Your task to perform on an android device: star an email in the gmail app Image 0: 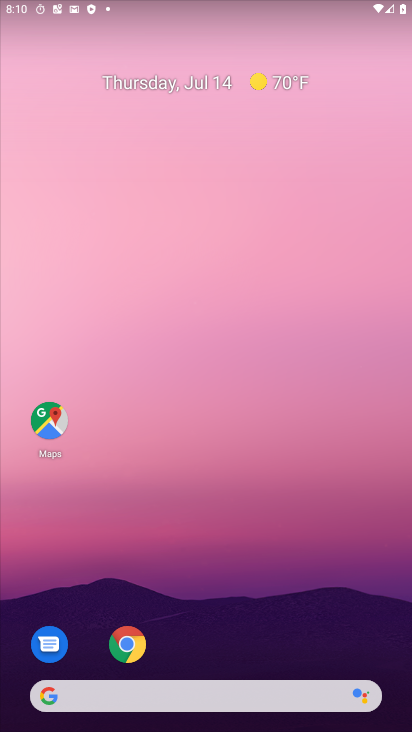
Step 0: drag from (198, 697) to (340, 96)
Your task to perform on an android device: star an email in the gmail app Image 1: 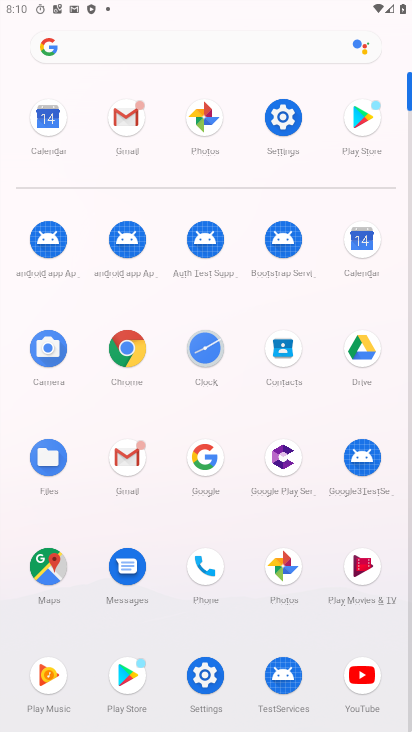
Step 1: click (123, 114)
Your task to perform on an android device: star an email in the gmail app Image 2: 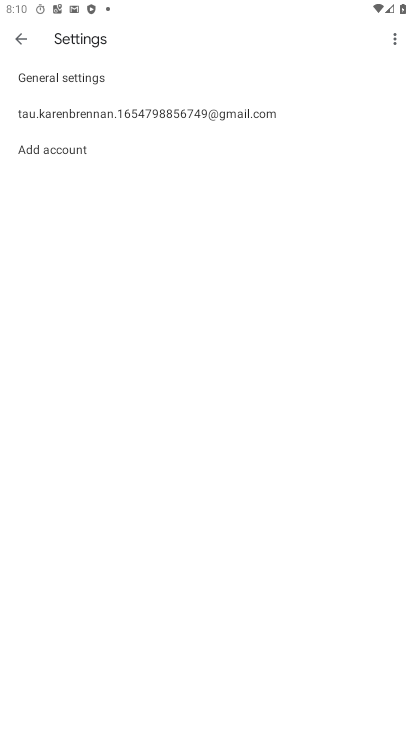
Step 2: click (18, 37)
Your task to perform on an android device: star an email in the gmail app Image 3: 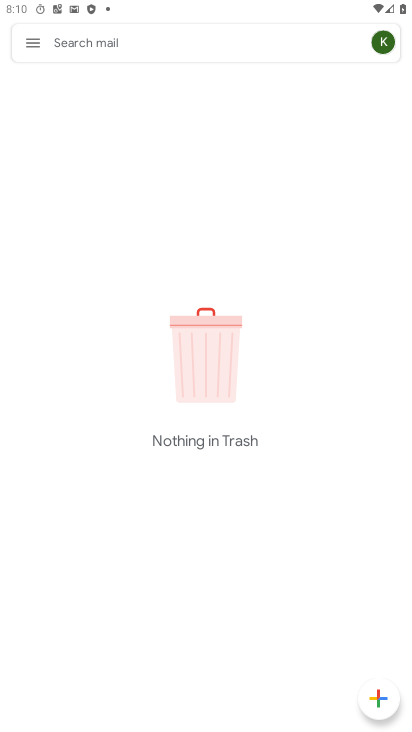
Step 3: click (41, 38)
Your task to perform on an android device: star an email in the gmail app Image 4: 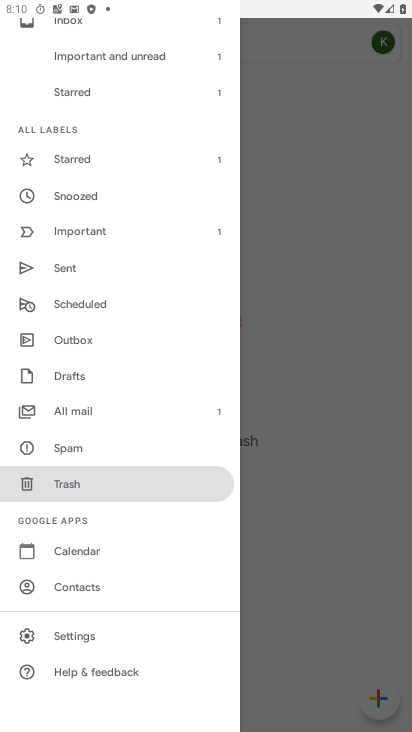
Step 4: drag from (160, 77) to (66, 418)
Your task to perform on an android device: star an email in the gmail app Image 5: 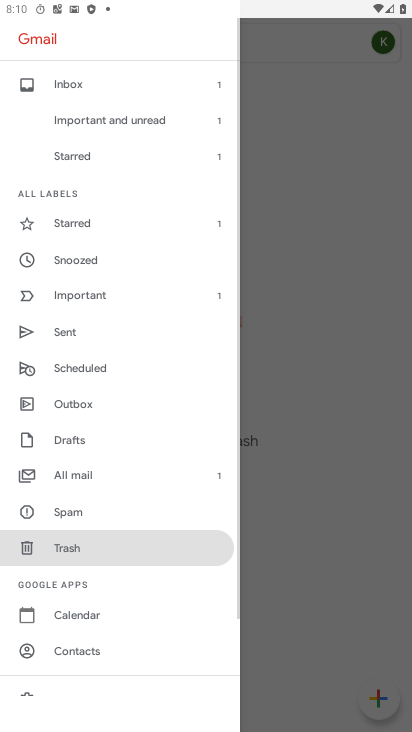
Step 5: click (69, 84)
Your task to perform on an android device: star an email in the gmail app Image 6: 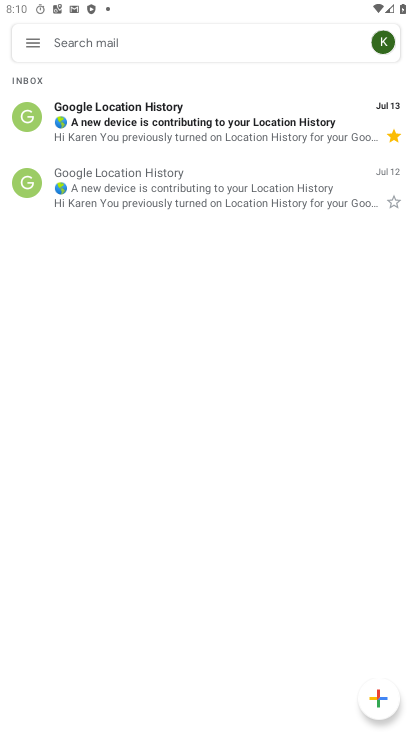
Step 6: click (34, 178)
Your task to perform on an android device: star an email in the gmail app Image 7: 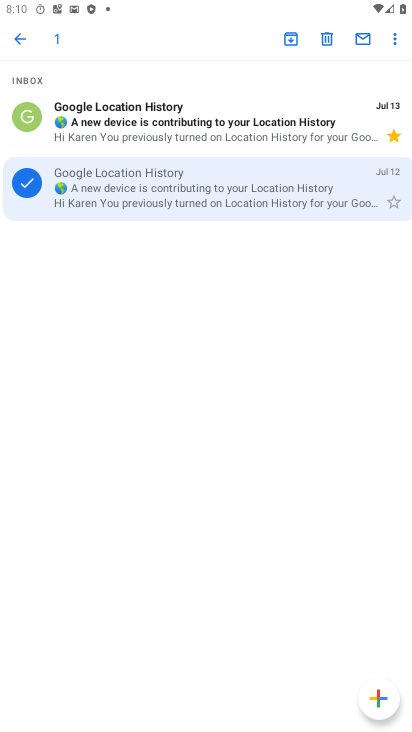
Step 7: click (393, 34)
Your task to perform on an android device: star an email in the gmail app Image 8: 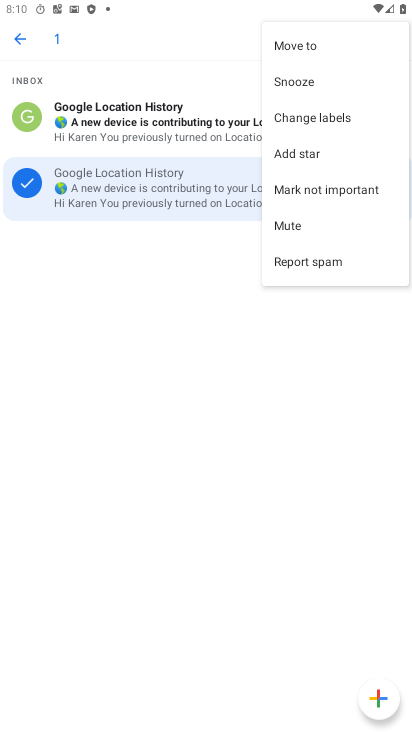
Step 8: click (306, 150)
Your task to perform on an android device: star an email in the gmail app Image 9: 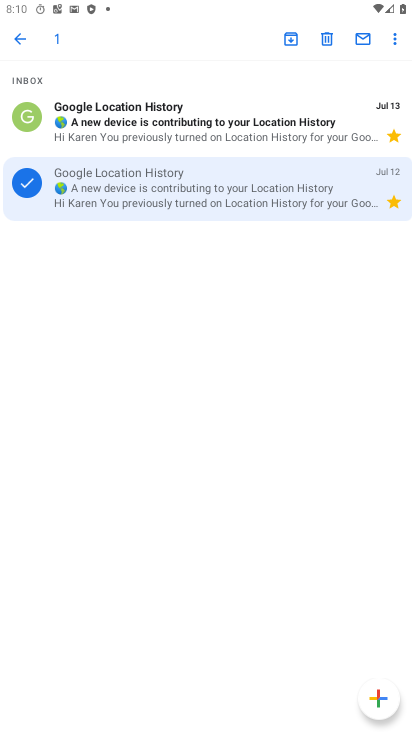
Step 9: click (193, 370)
Your task to perform on an android device: star an email in the gmail app Image 10: 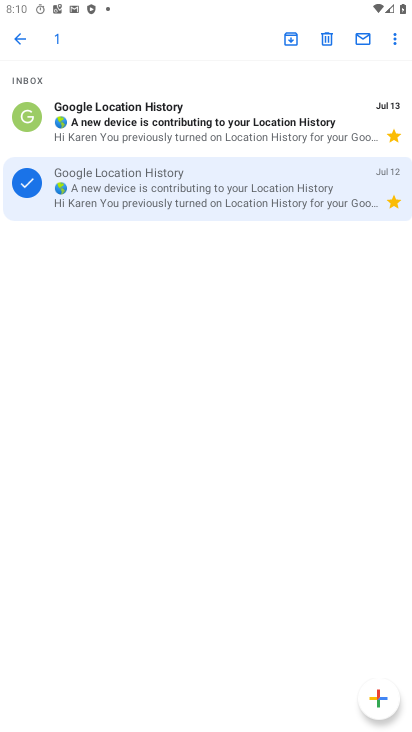
Step 10: task complete